Your task to perform on an android device: manage bookmarks in the chrome app Image 0: 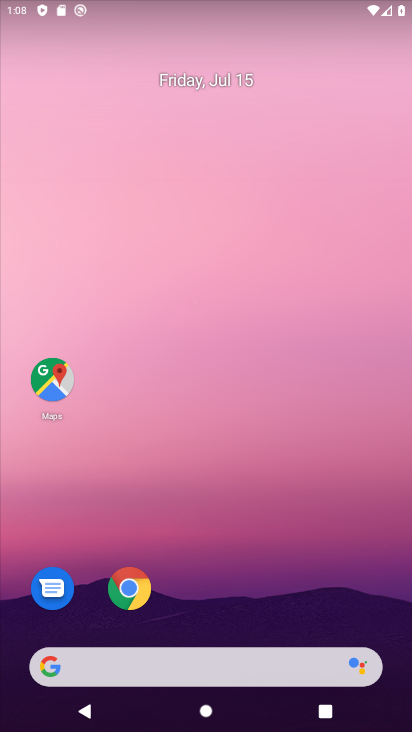
Step 0: click (120, 600)
Your task to perform on an android device: manage bookmarks in the chrome app Image 1: 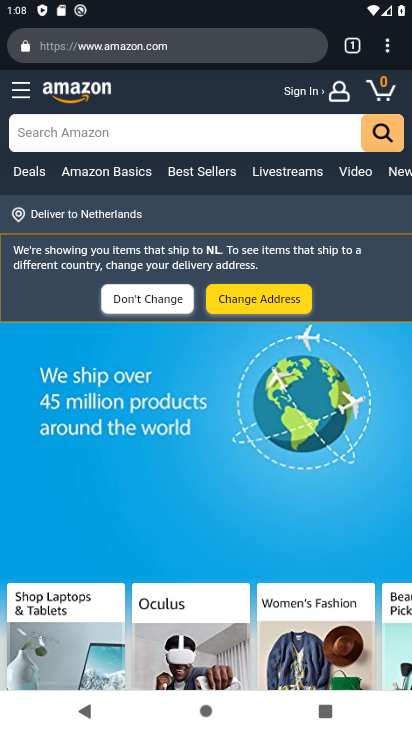
Step 1: click (385, 44)
Your task to perform on an android device: manage bookmarks in the chrome app Image 2: 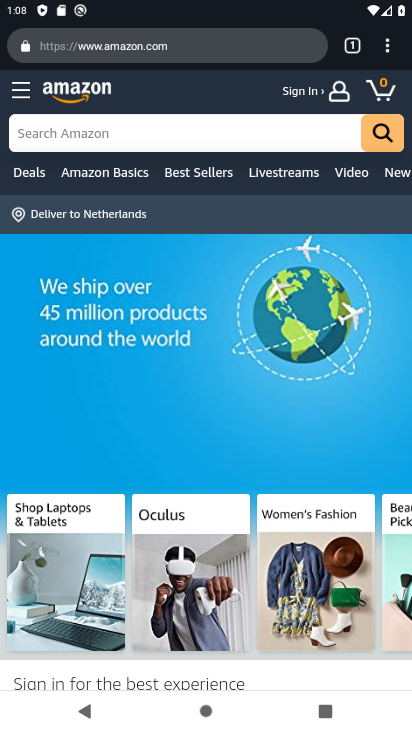
Step 2: click (388, 36)
Your task to perform on an android device: manage bookmarks in the chrome app Image 3: 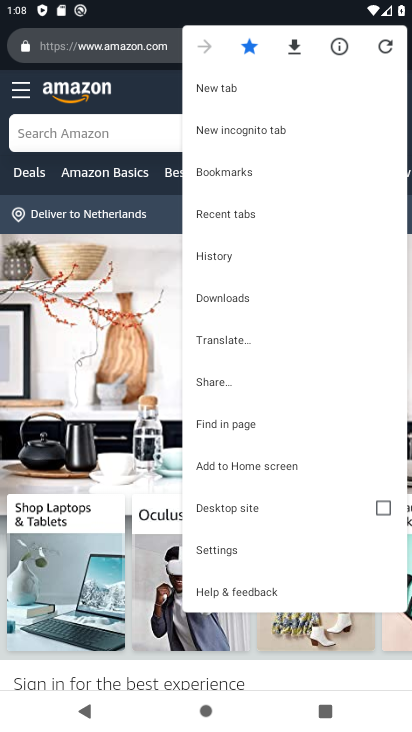
Step 3: click (222, 175)
Your task to perform on an android device: manage bookmarks in the chrome app Image 4: 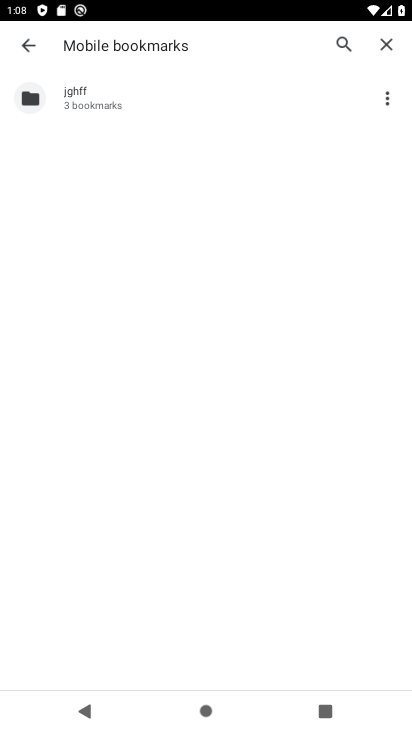
Step 4: click (389, 99)
Your task to perform on an android device: manage bookmarks in the chrome app Image 5: 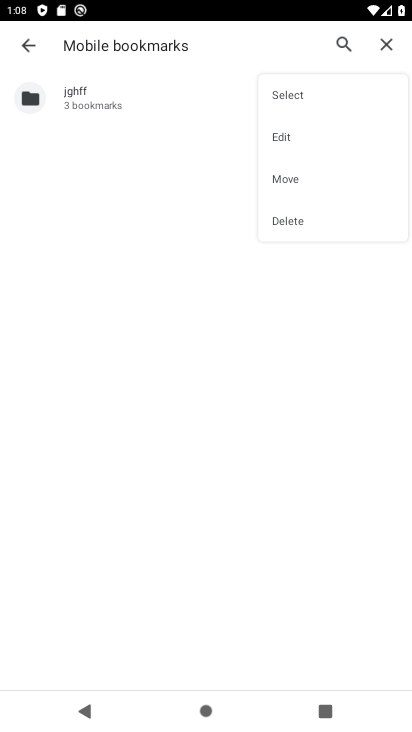
Step 5: click (338, 224)
Your task to perform on an android device: manage bookmarks in the chrome app Image 6: 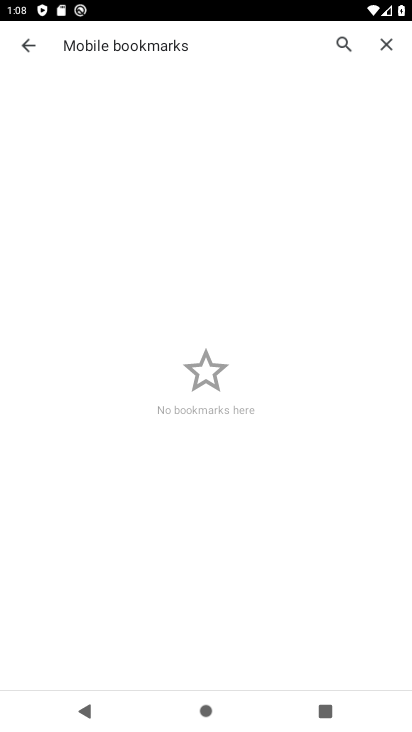
Step 6: task complete